Your task to perform on an android device: Open Google Chrome Image 0: 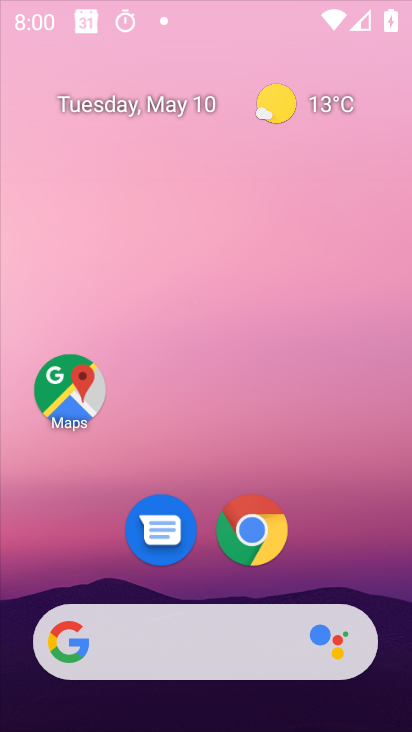
Step 0: click (293, 109)
Your task to perform on an android device: Open Google Chrome Image 1: 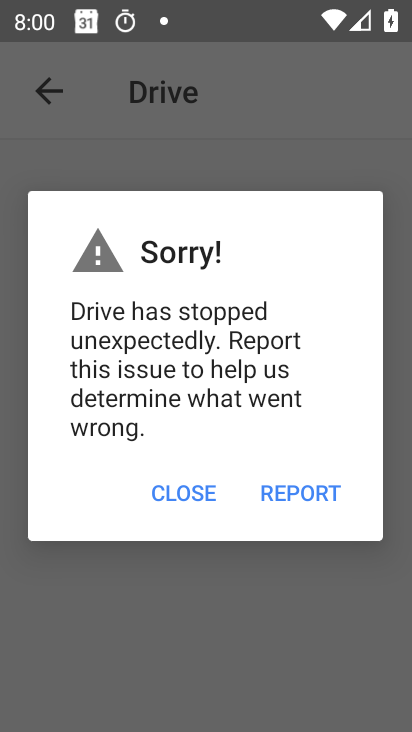
Step 1: press home button
Your task to perform on an android device: Open Google Chrome Image 2: 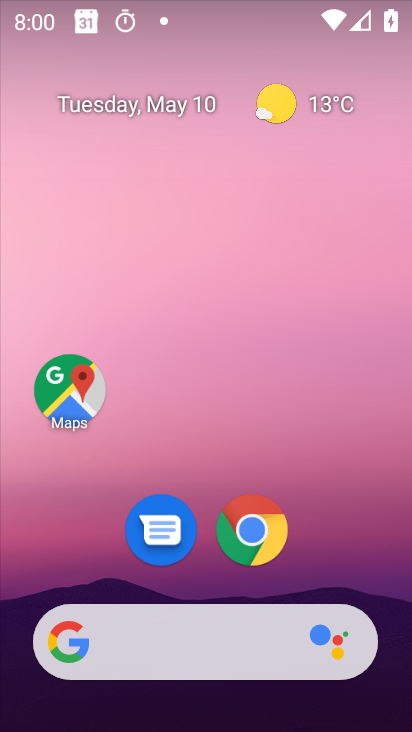
Step 2: click (253, 528)
Your task to perform on an android device: Open Google Chrome Image 3: 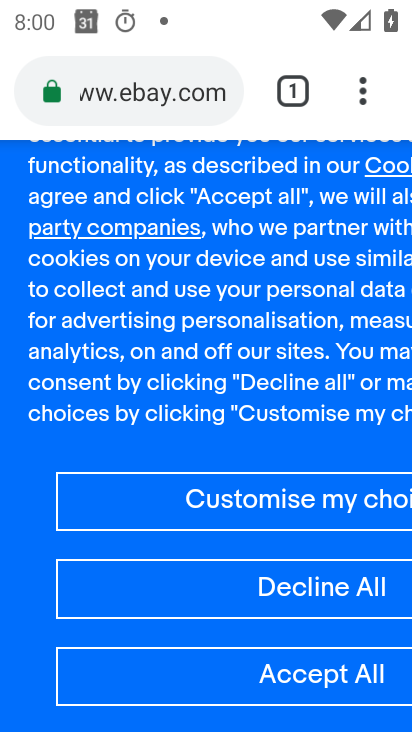
Step 3: task complete